Your task to perform on an android device: toggle notifications settings in the gmail app Image 0: 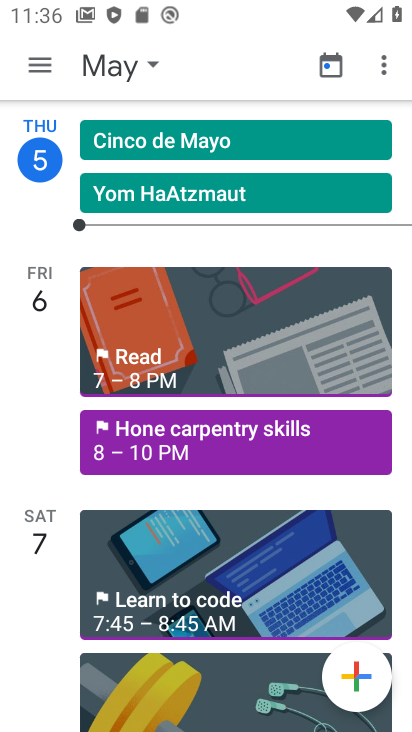
Step 0: press back button
Your task to perform on an android device: toggle notifications settings in the gmail app Image 1: 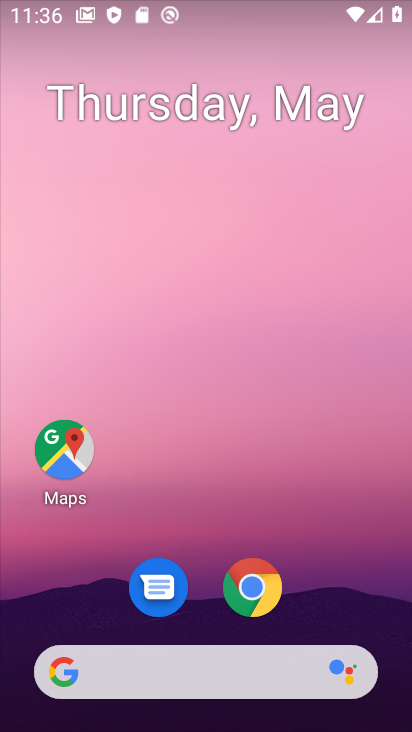
Step 1: drag from (192, 609) to (303, 130)
Your task to perform on an android device: toggle notifications settings in the gmail app Image 2: 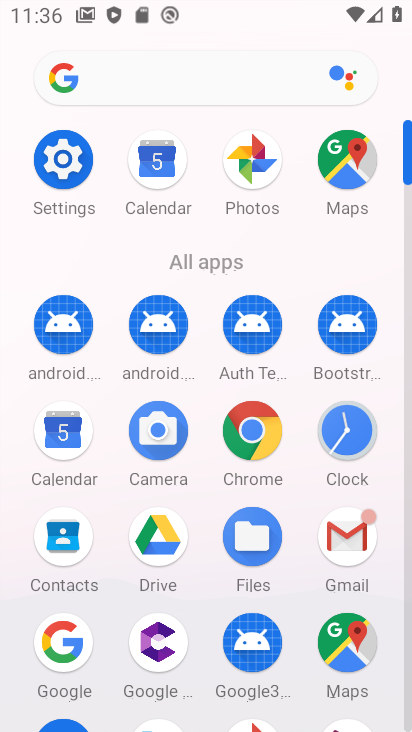
Step 2: click (349, 530)
Your task to perform on an android device: toggle notifications settings in the gmail app Image 3: 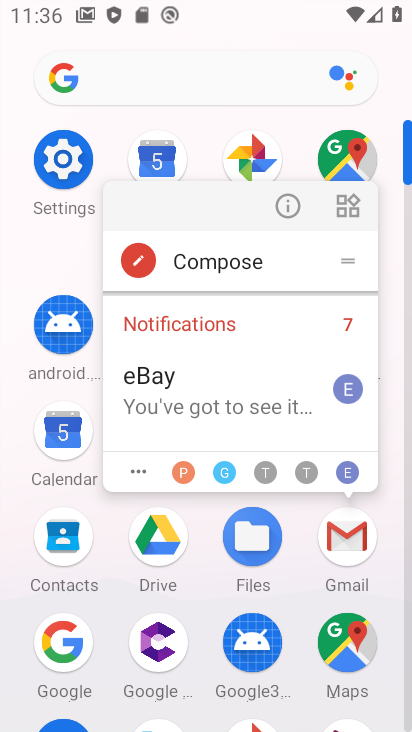
Step 3: click (287, 206)
Your task to perform on an android device: toggle notifications settings in the gmail app Image 4: 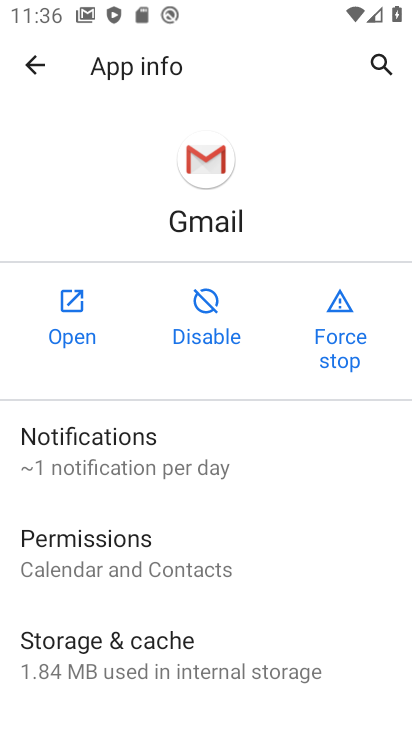
Step 4: click (130, 440)
Your task to perform on an android device: toggle notifications settings in the gmail app Image 5: 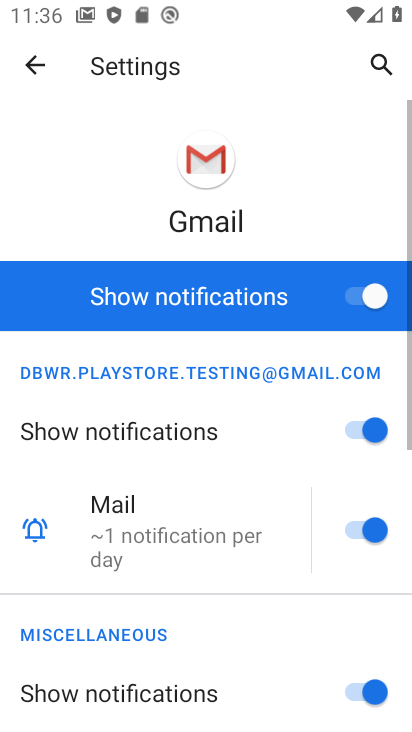
Step 5: click (357, 288)
Your task to perform on an android device: toggle notifications settings in the gmail app Image 6: 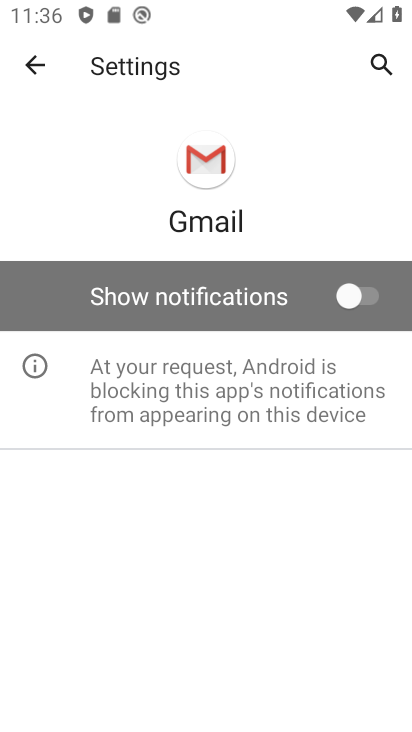
Step 6: task complete